Your task to perform on an android device: Do I have any events this weekend? Image 0: 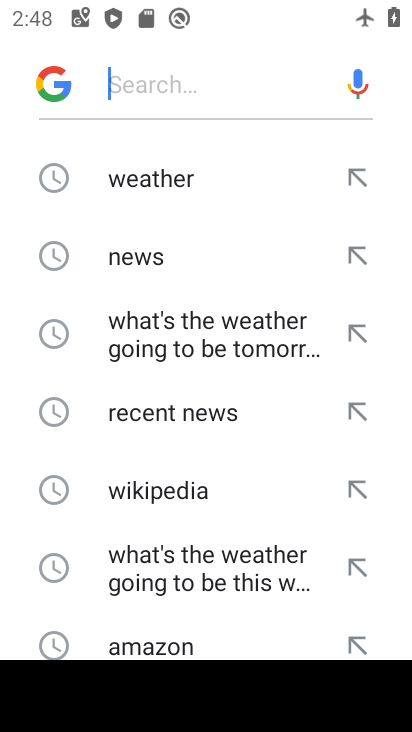
Step 0: press home button
Your task to perform on an android device: Do I have any events this weekend? Image 1: 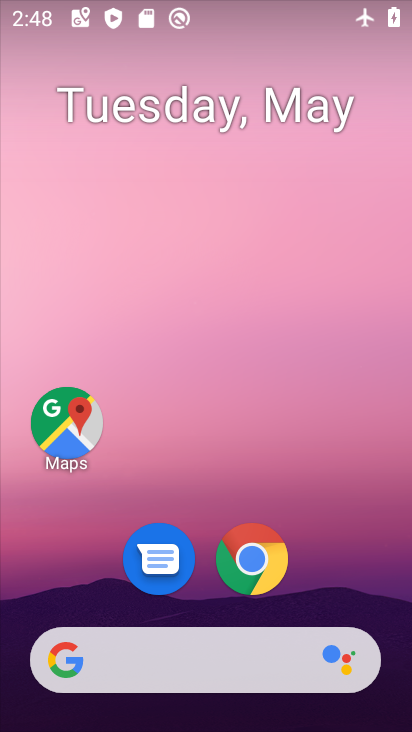
Step 1: drag from (145, 656) to (327, 101)
Your task to perform on an android device: Do I have any events this weekend? Image 2: 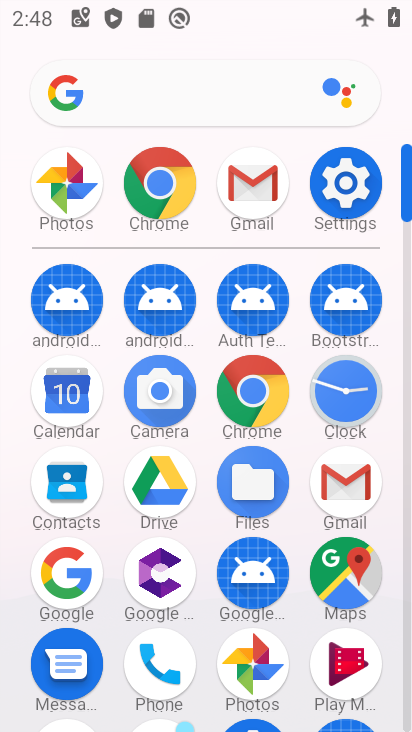
Step 2: click (65, 417)
Your task to perform on an android device: Do I have any events this weekend? Image 3: 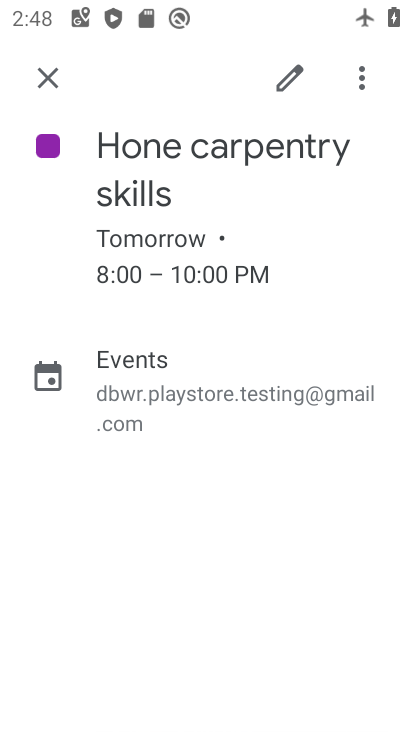
Step 3: click (40, 80)
Your task to perform on an android device: Do I have any events this weekend? Image 4: 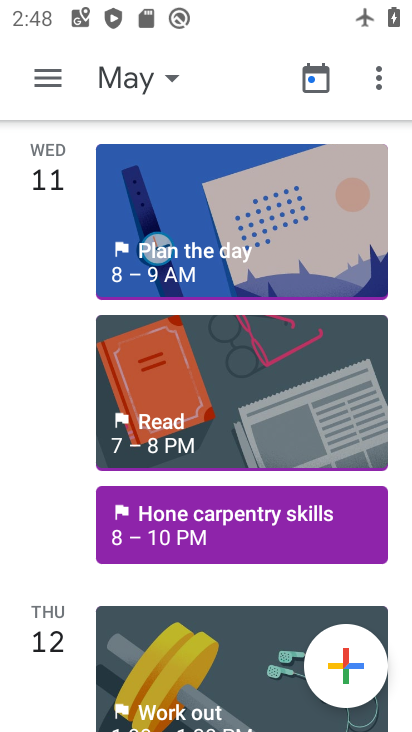
Step 4: click (129, 74)
Your task to perform on an android device: Do I have any events this weekend? Image 5: 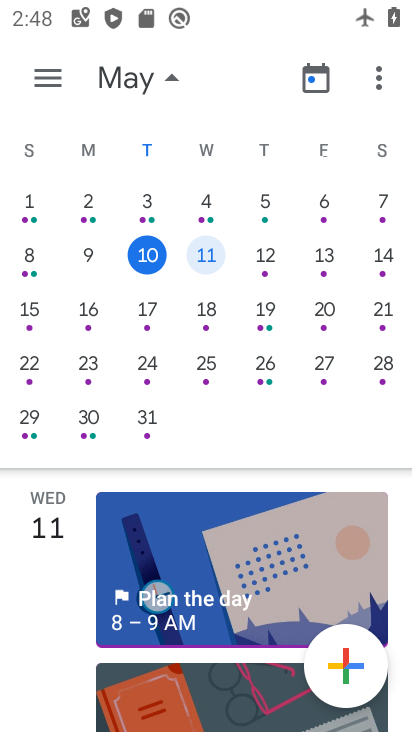
Step 5: click (385, 259)
Your task to perform on an android device: Do I have any events this weekend? Image 6: 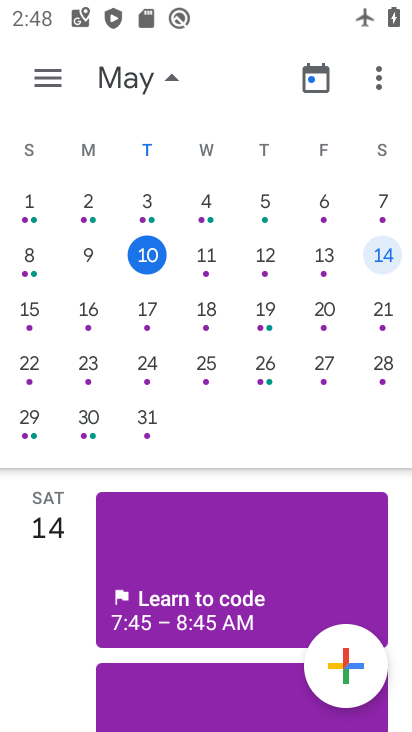
Step 6: click (49, 80)
Your task to perform on an android device: Do I have any events this weekend? Image 7: 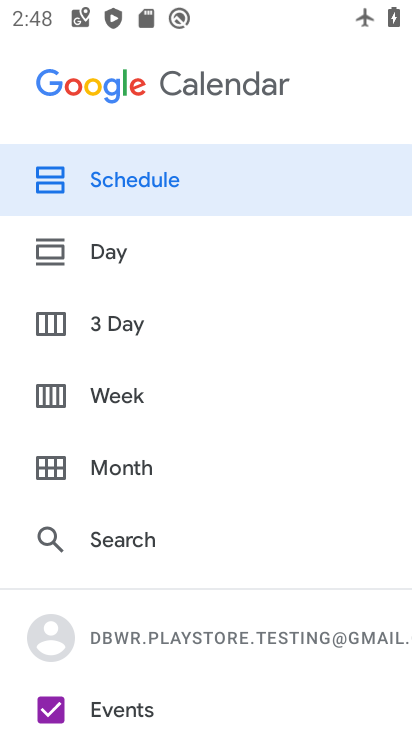
Step 7: click (51, 247)
Your task to perform on an android device: Do I have any events this weekend? Image 8: 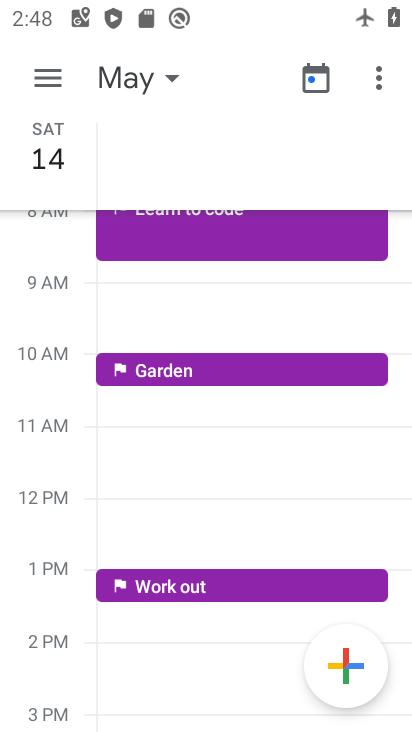
Step 8: click (37, 79)
Your task to perform on an android device: Do I have any events this weekend? Image 9: 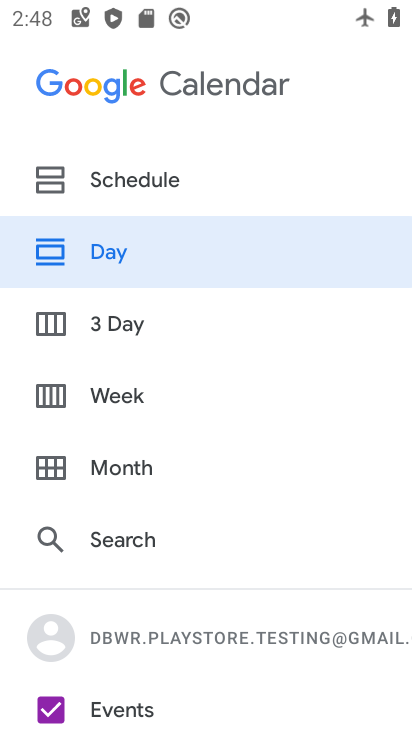
Step 9: click (95, 170)
Your task to perform on an android device: Do I have any events this weekend? Image 10: 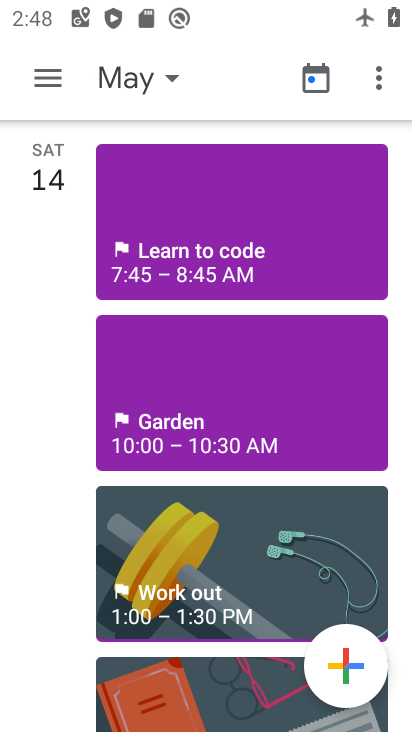
Step 10: click (212, 233)
Your task to perform on an android device: Do I have any events this weekend? Image 11: 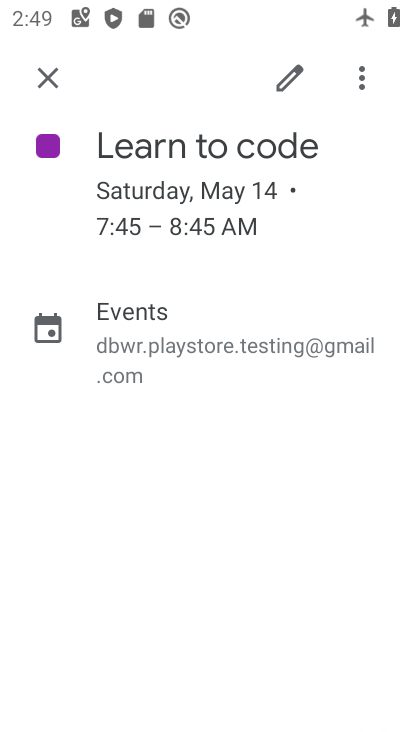
Step 11: task complete